Your task to perform on an android device: Search for vegetarian restaurants on Maps Image 0: 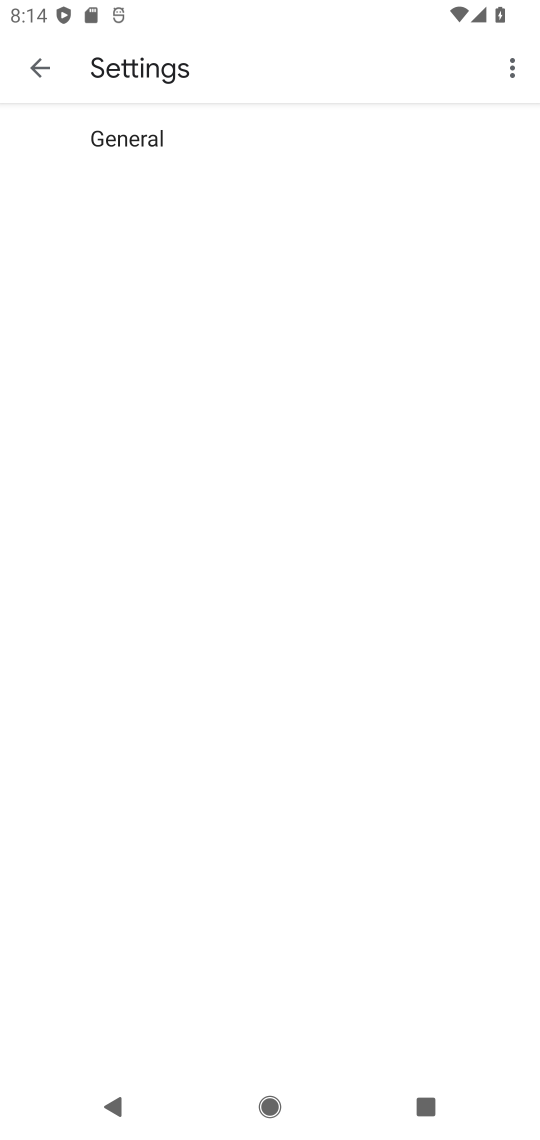
Step 0: press home button
Your task to perform on an android device: Search for vegetarian restaurants on Maps Image 1: 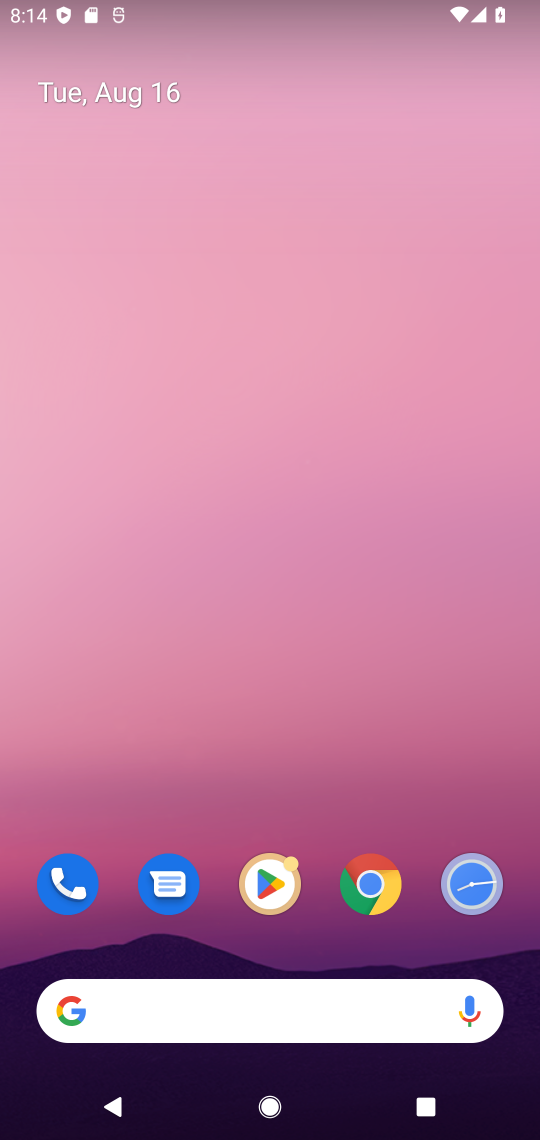
Step 1: drag from (409, 933) to (409, 395)
Your task to perform on an android device: Search for vegetarian restaurants on Maps Image 2: 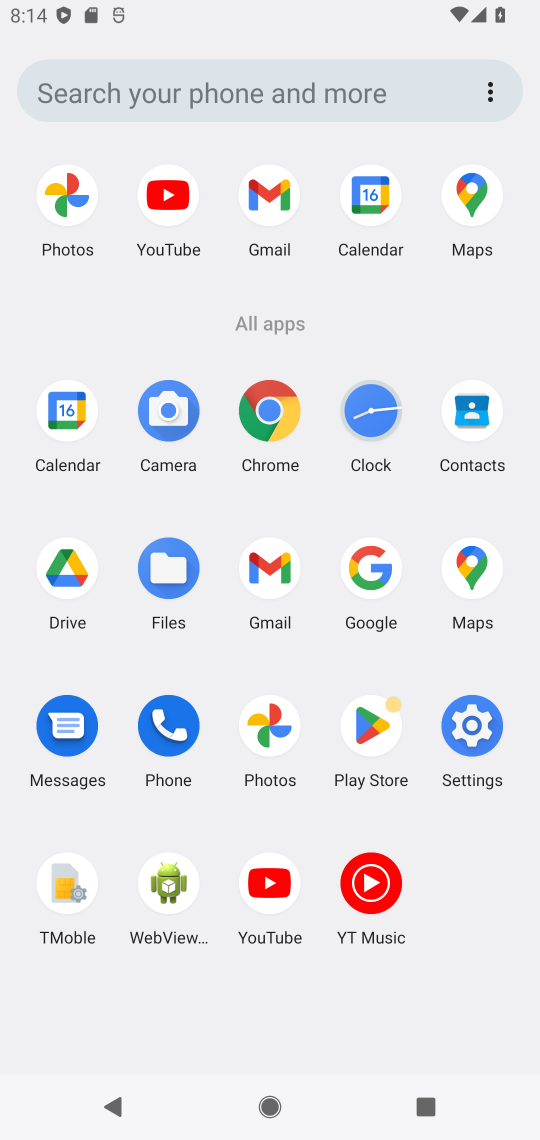
Step 2: click (469, 563)
Your task to perform on an android device: Search for vegetarian restaurants on Maps Image 3: 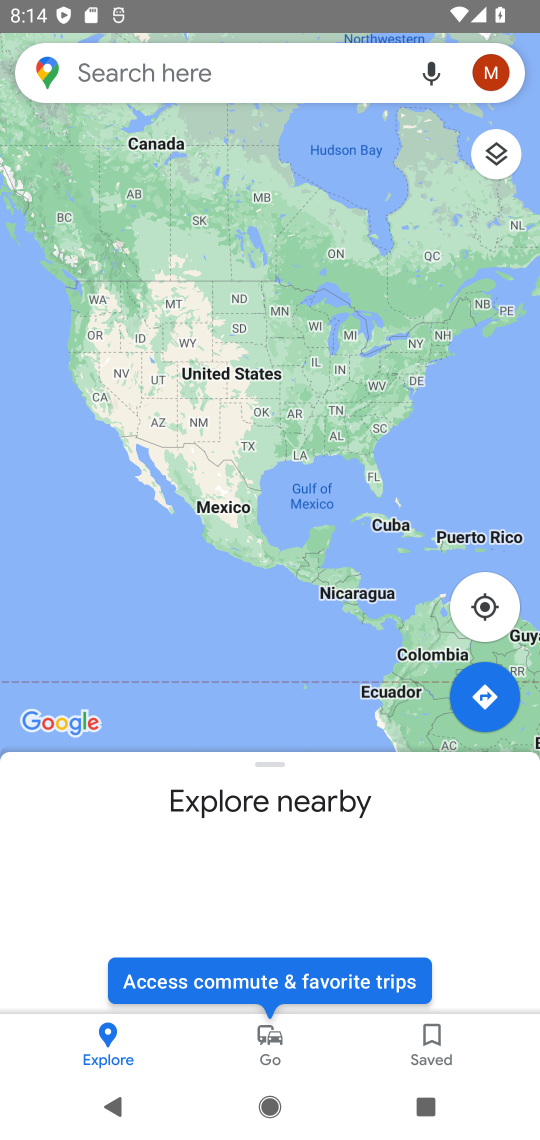
Step 3: click (181, 71)
Your task to perform on an android device: Search for vegetarian restaurants on Maps Image 4: 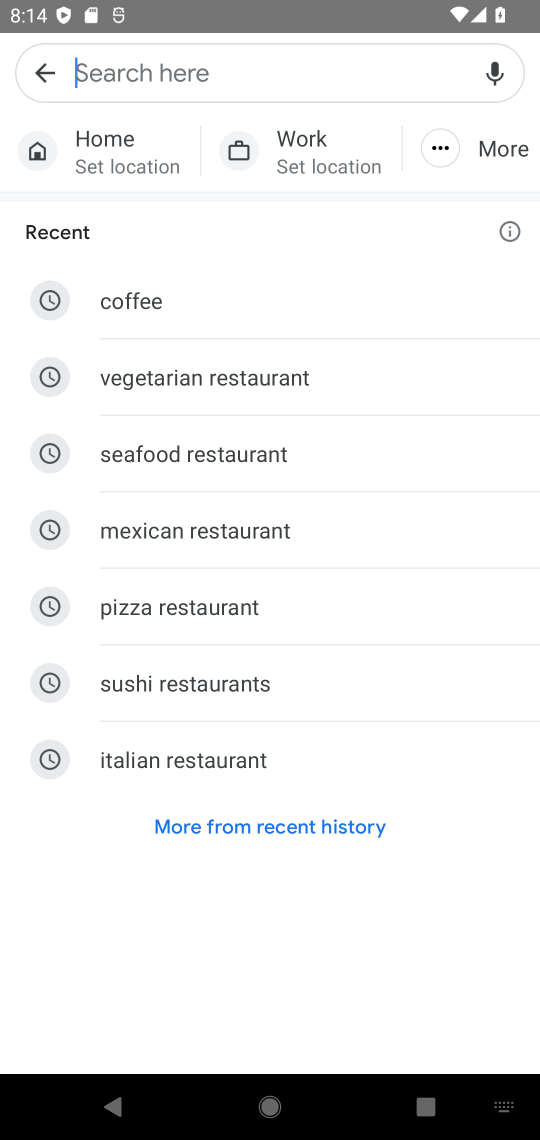
Step 4: type "vegetarian restaurants"
Your task to perform on an android device: Search for vegetarian restaurants on Maps Image 5: 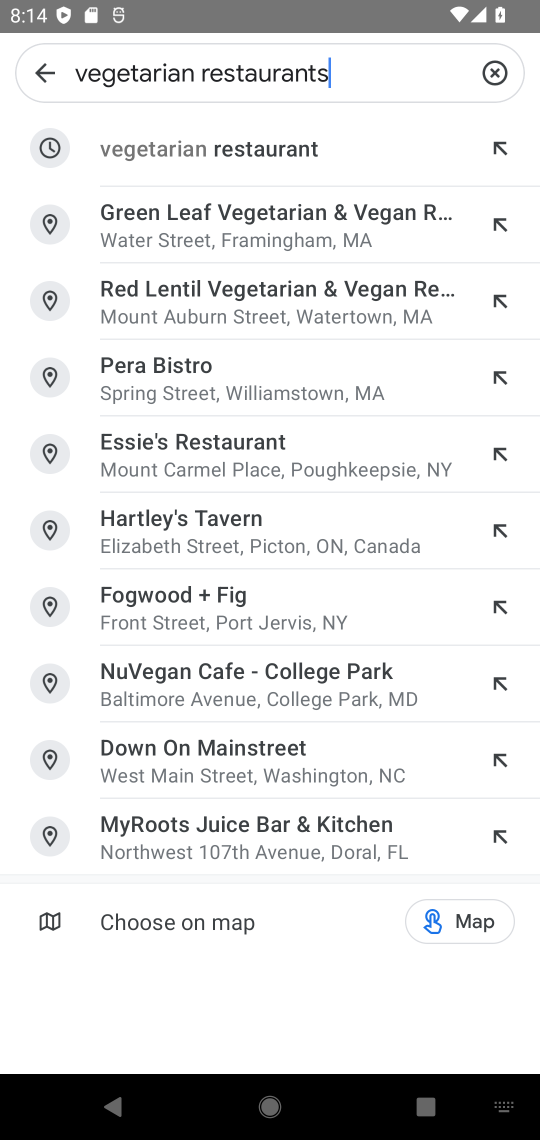
Step 5: click (202, 154)
Your task to perform on an android device: Search for vegetarian restaurants on Maps Image 6: 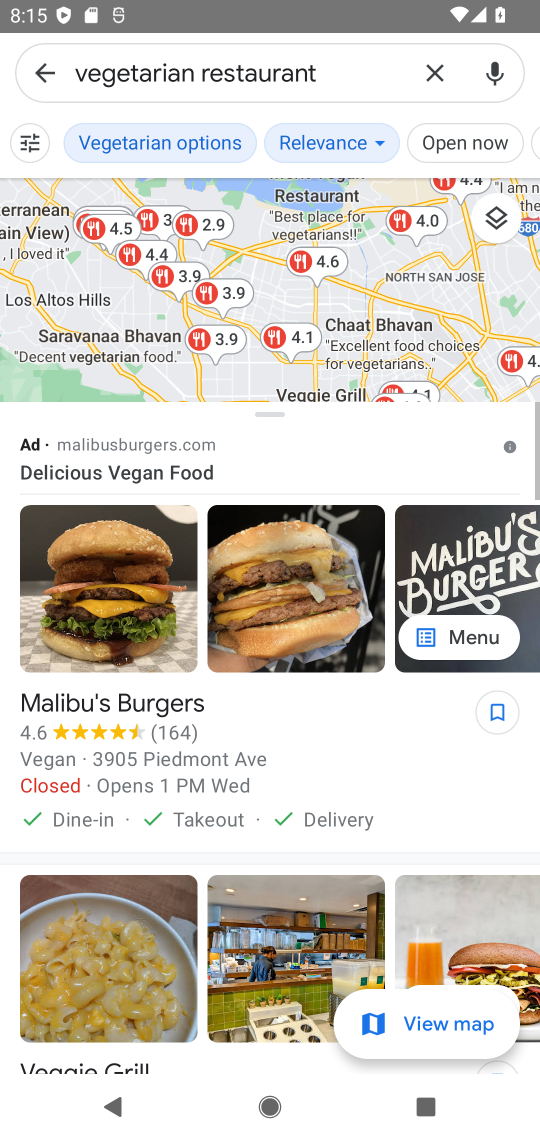
Step 6: task complete